Your task to perform on an android device: turn on data saver in the chrome app Image 0: 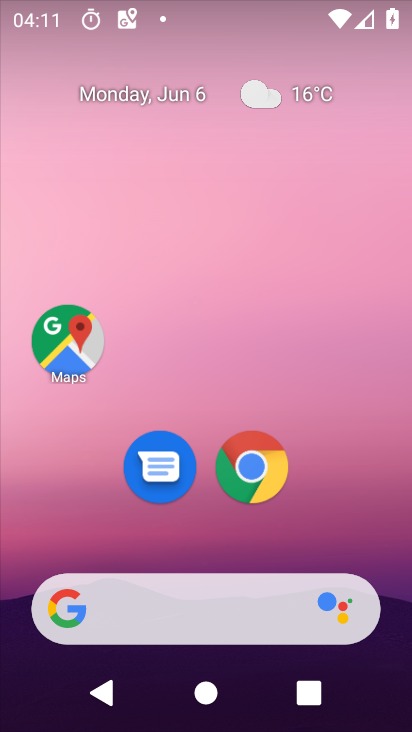
Step 0: click (245, 459)
Your task to perform on an android device: turn on data saver in the chrome app Image 1: 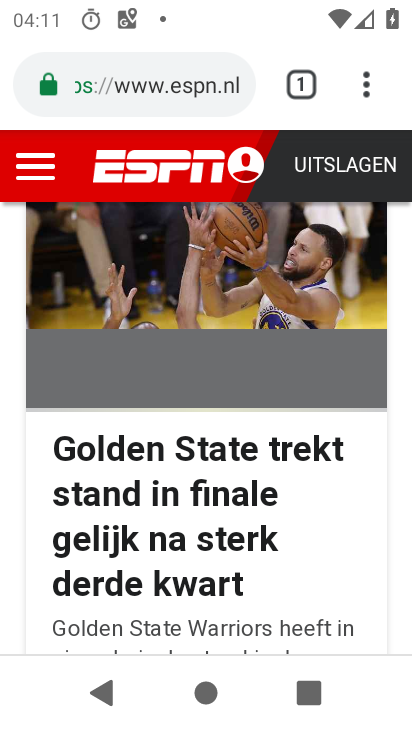
Step 1: click (364, 83)
Your task to perform on an android device: turn on data saver in the chrome app Image 2: 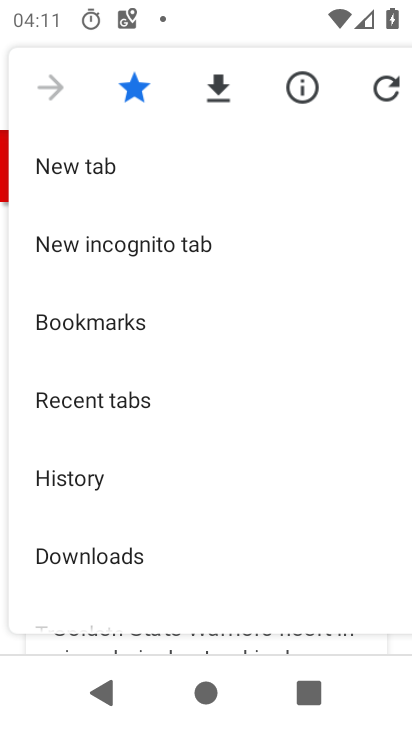
Step 2: drag from (205, 553) to (245, 129)
Your task to perform on an android device: turn on data saver in the chrome app Image 3: 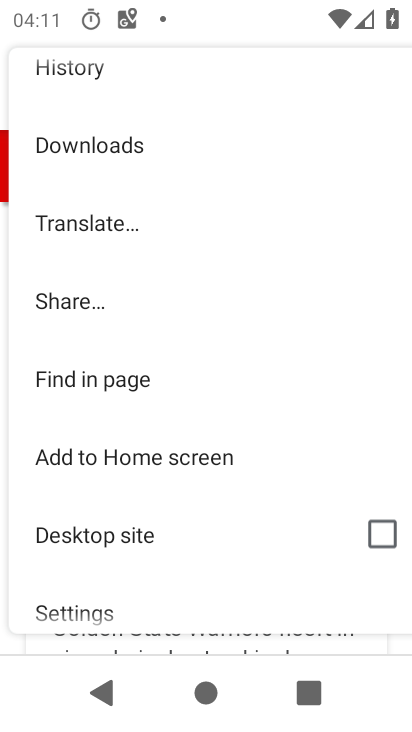
Step 3: click (137, 602)
Your task to perform on an android device: turn on data saver in the chrome app Image 4: 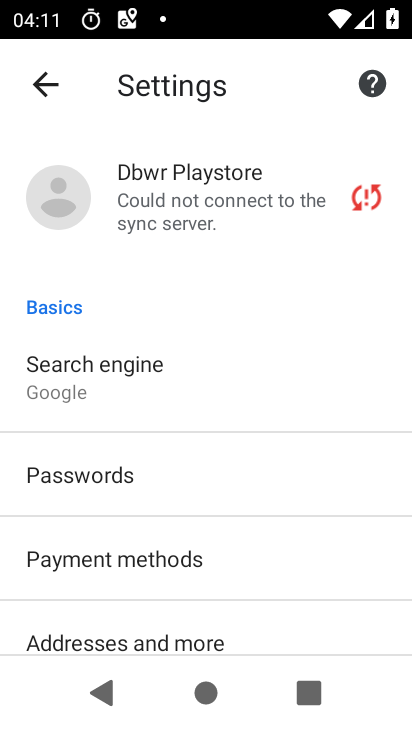
Step 4: drag from (238, 616) to (269, 235)
Your task to perform on an android device: turn on data saver in the chrome app Image 5: 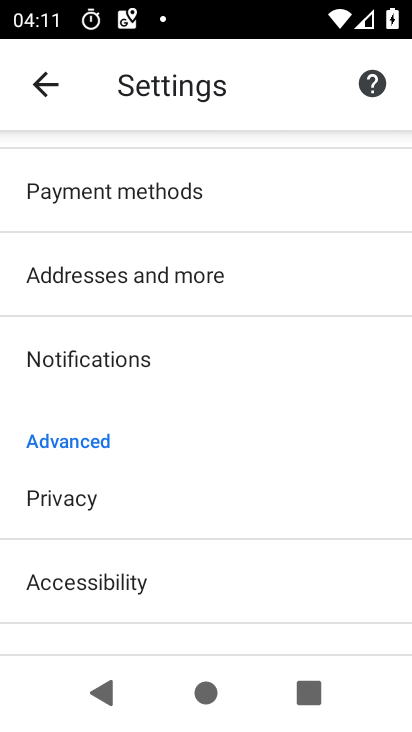
Step 5: drag from (258, 602) to (288, 186)
Your task to perform on an android device: turn on data saver in the chrome app Image 6: 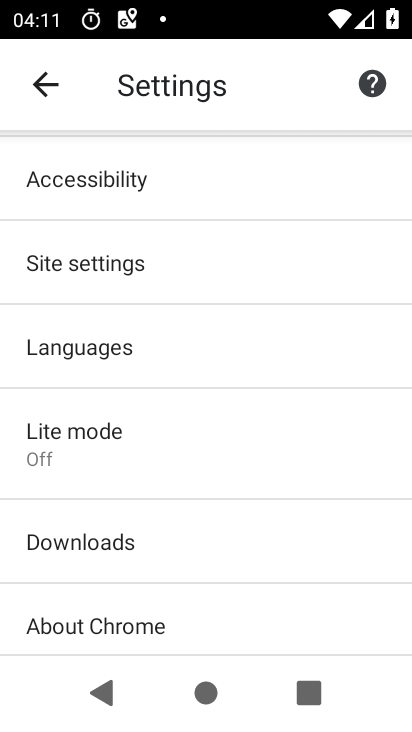
Step 6: click (147, 445)
Your task to perform on an android device: turn on data saver in the chrome app Image 7: 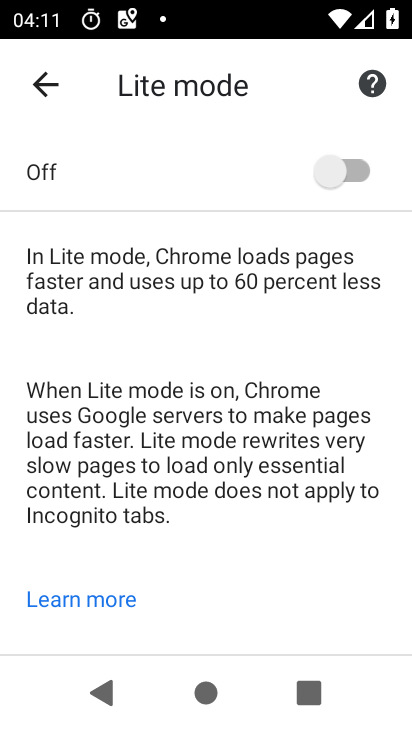
Step 7: click (365, 168)
Your task to perform on an android device: turn on data saver in the chrome app Image 8: 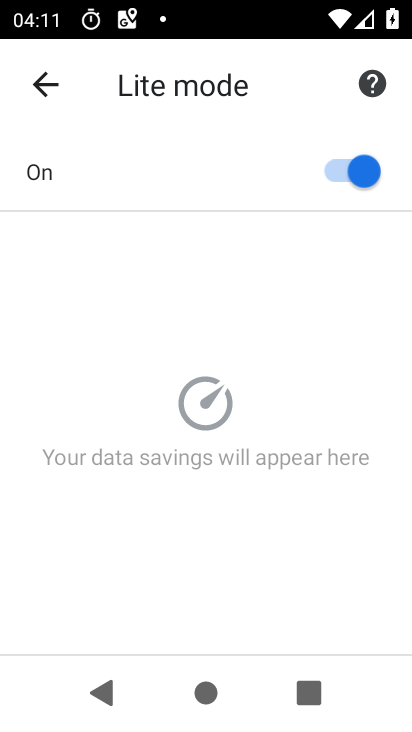
Step 8: task complete